Your task to perform on an android device: add a label to a message in the gmail app Image 0: 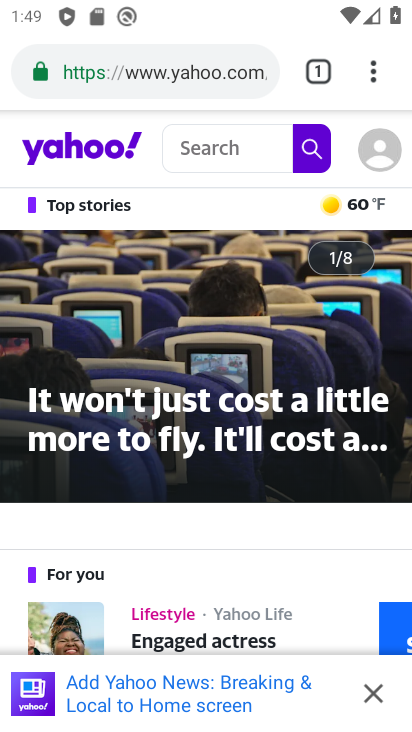
Step 0: press home button
Your task to perform on an android device: add a label to a message in the gmail app Image 1: 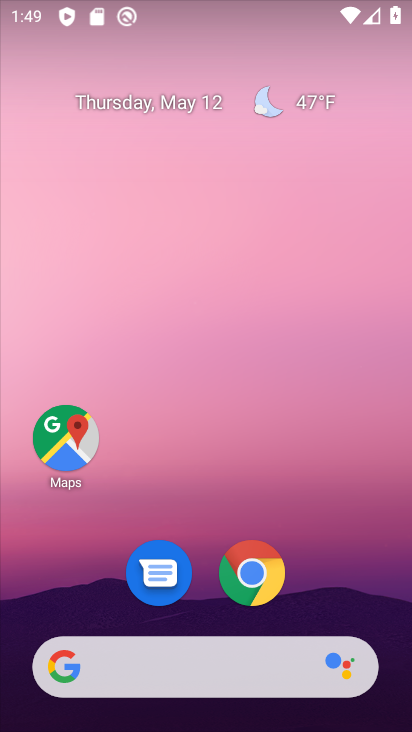
Step 1: drag from (205, 622) to (224, 190)
Your task to perform on an android device: add a label to a message in the gmail app Image 2: 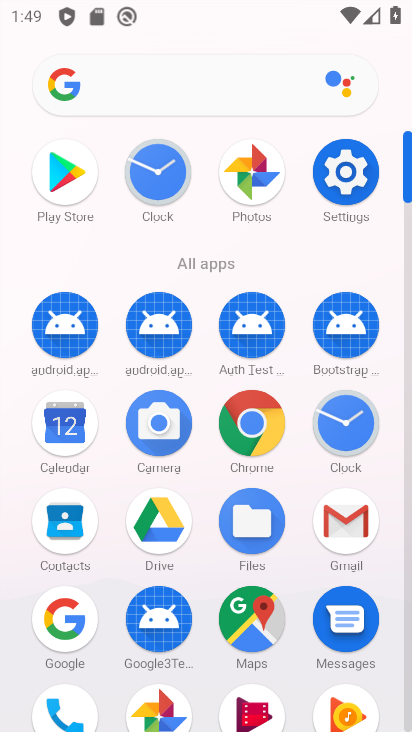
Step 2: click (358, 503)
Your task to perform on an android device: add a label to a message in the gmail app Image 3: 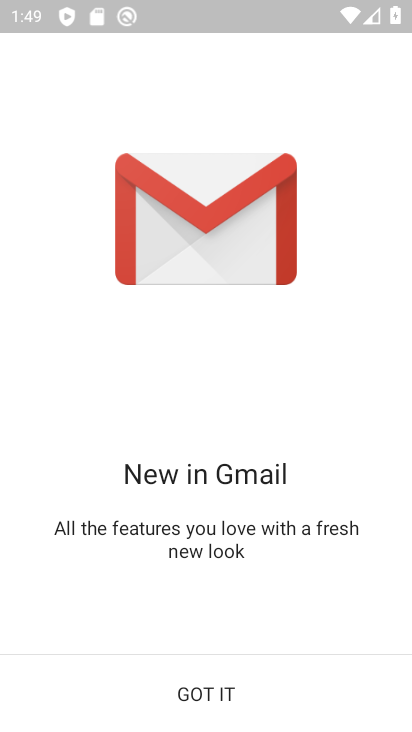
Step 3: click (230, 681)
Your task to perform on an android device: add a label to a message in the gmail app Image 4: 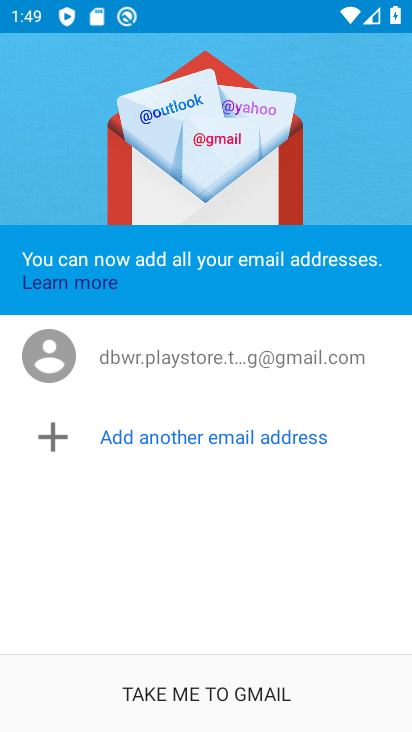
Step 4: click (230, 681)
Your task to perform on an android device: add a label to a message in the gmail app Image 5: 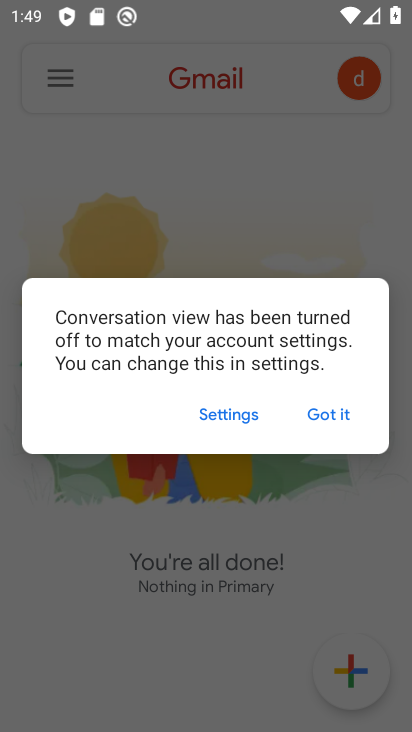
Step 5: click (339, 418)
Your task to perform on an android device: add a label to a message in the gmail app Image 6: 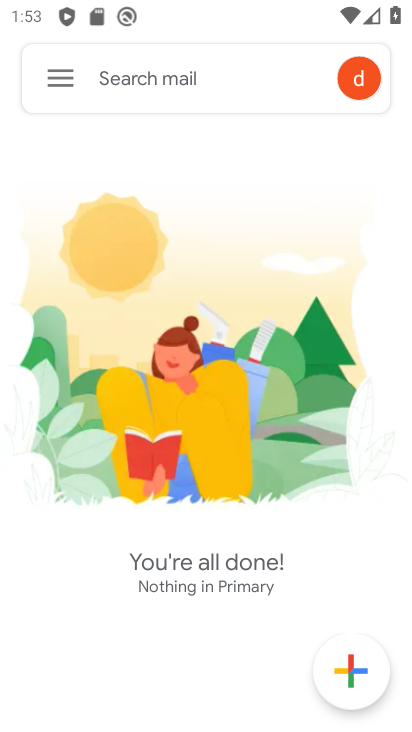
Step 6: task complete